Your task to perform on an android device: Open battery settings Image 0: 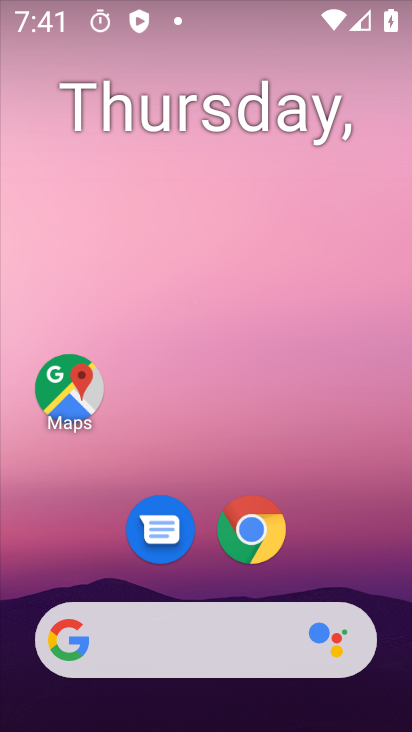
Step 0: drag from (397, 610) to (344, 295)
Your task to perform on an android device: Open battery settings Image 1: 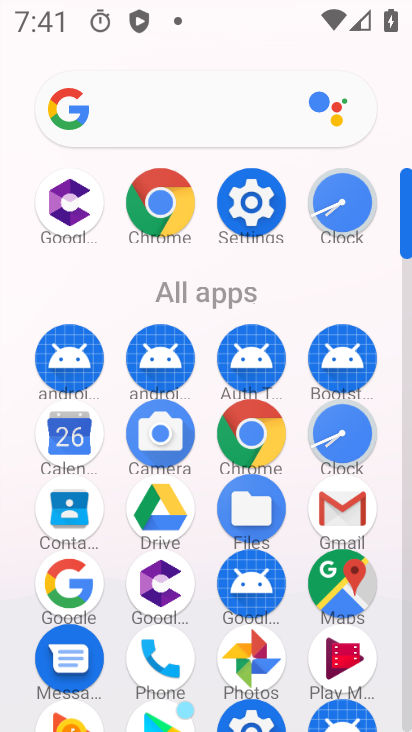
Step 1: click (255, 212)
Your task to perform on an android device: Open battery settings Image 2: 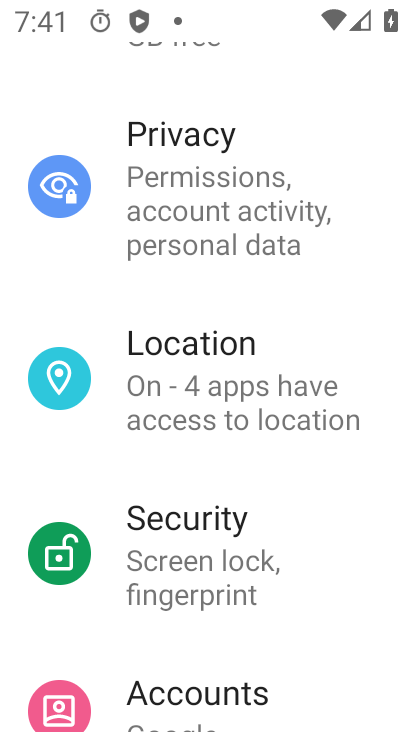
Step 2: drag from (365, 687) to (363, 283)
Your task to perform on an android device: Open battery settings Image 3: 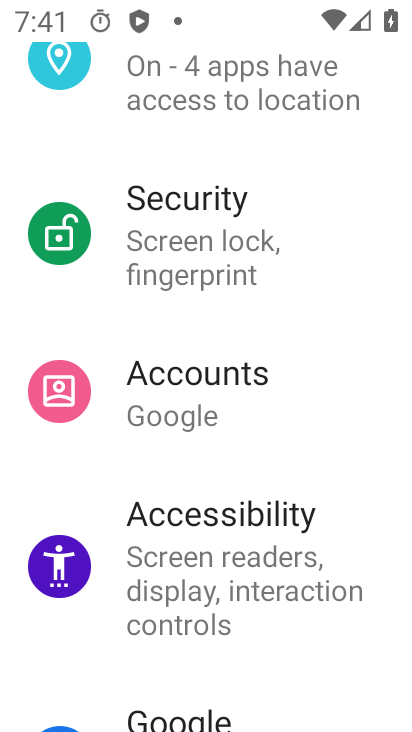
Step 3: drag from (350, 698) to (338, 323)
Your task to perform on an android device: Open battery settings Image 4: 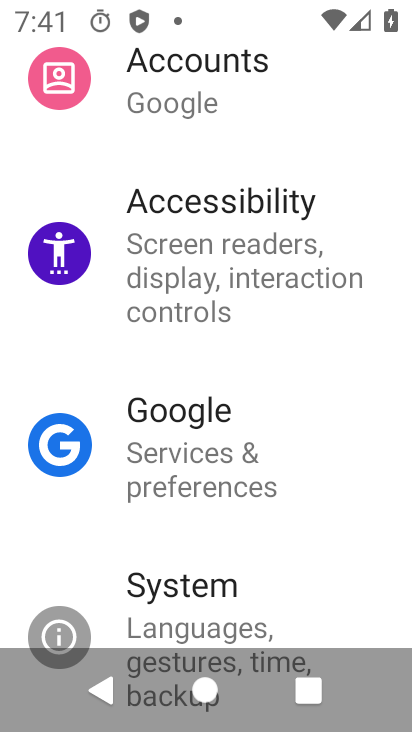
Step 4: drag from (347, 624) to (345, 374)
Your task to perform on an android device: Open battery settings Image 5: 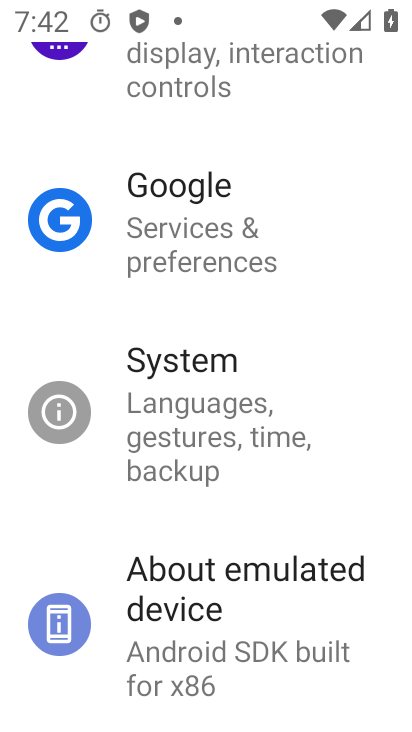
Step 5: drag from (371, 642) to (346, 268)
Your task to perform on an android device: Open battery settings Image 6: 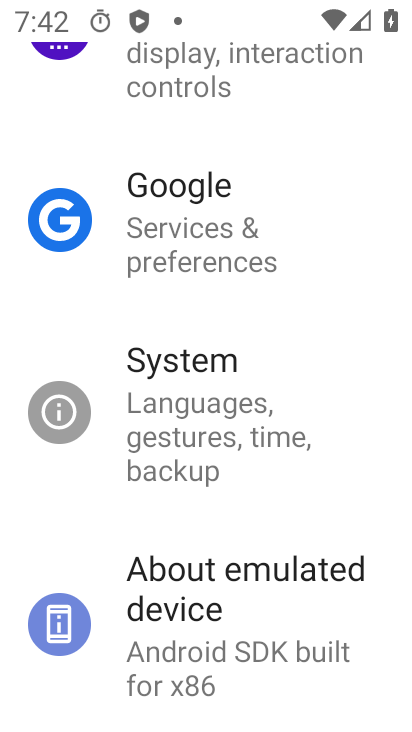
Step 6: drag from (322, 165) to (310, 582)
Your task to perform on an android device: Open battery settings Image 7: 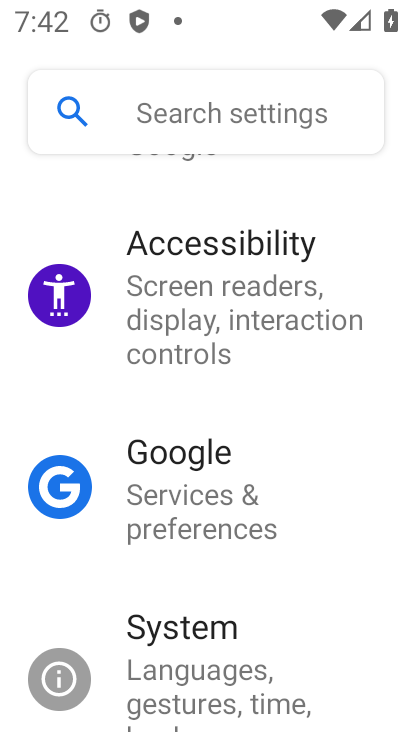
Step 7: drag from (330, 259) to (339, 688)
Your task to perform on an android device: Open battery settings Image 8: 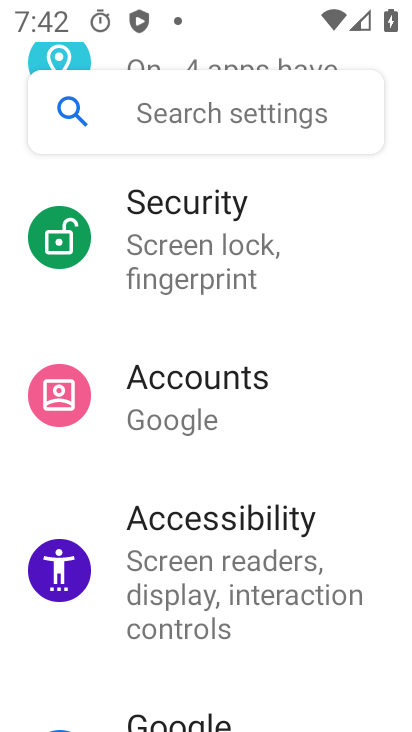
Step 8: drag from (367, 195) to (385, 675)
Your task to perform on an android device: Open battery settings Image 9: 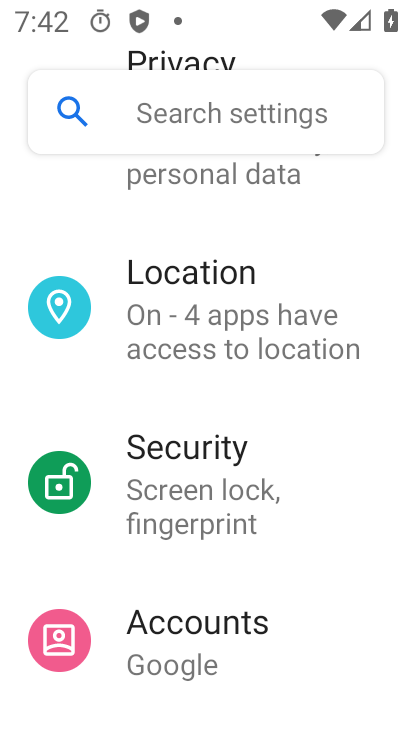
Step 9: drag from (369, 178) to (373, 711)
Your task to perform on an android device: Open battery settings Image 10: 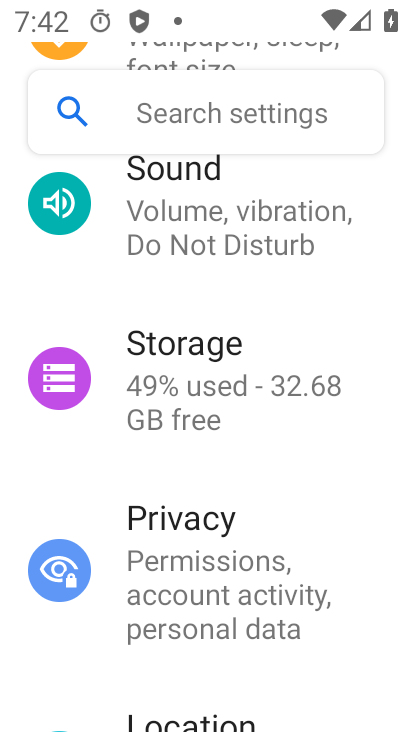
Step 10: drag from (362, 176) to (355, 710)
Your task to perform on an android device: Open battery settings Image 11: 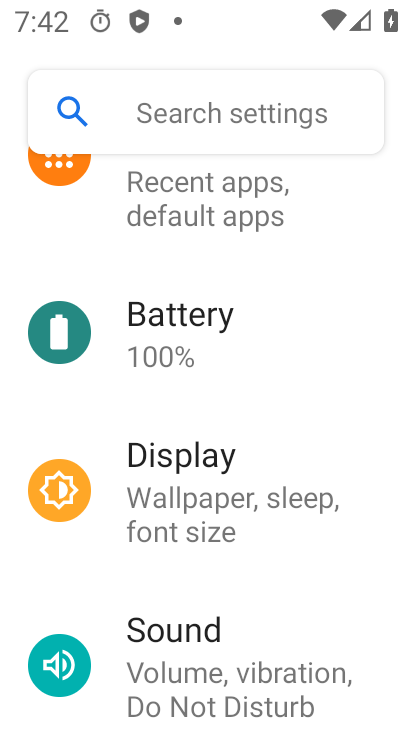
Step 11: click (159, 321)
Your task to perform on an android device: Open battery settings Image 12: 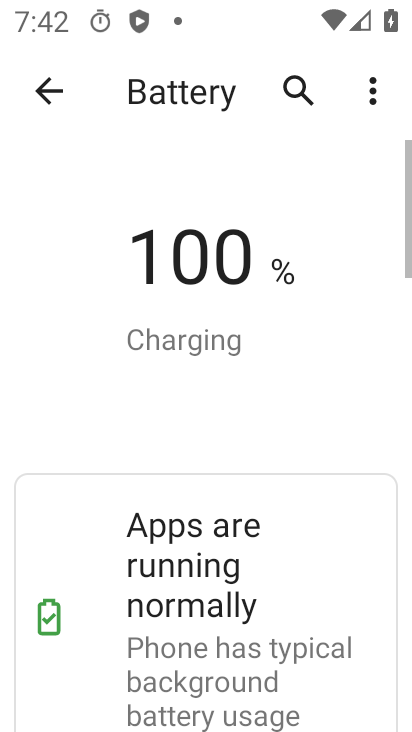
Step 12: task complete